Your task to perform on an android device: empty trash in the gmail app Image 0: 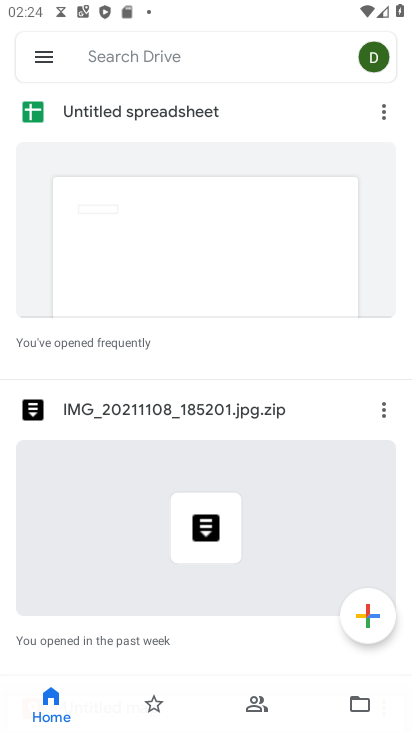
Step 0: press home button
Your task to perform on an android device: empty trash in the gmail app Image 1: 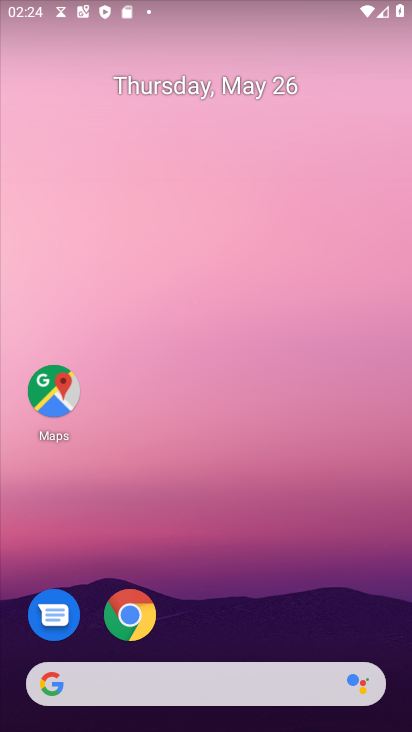
Step 1: drag from (212, 650) to (245, 22)
Your task to perform on an android device: empty trash in the gmail app Image 2: 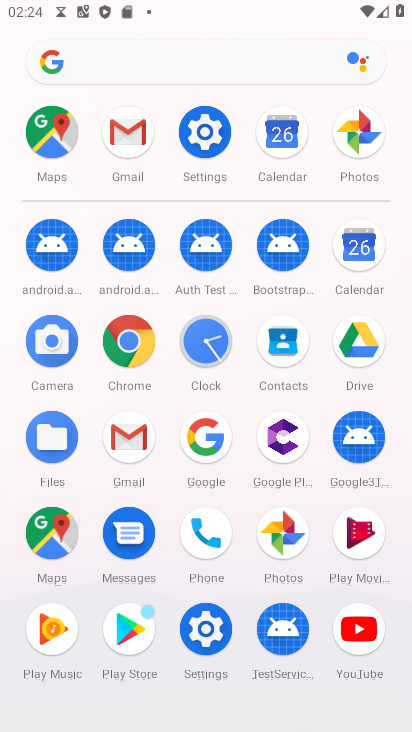
Step 2: click (126, 433)
Your task to perform on an android device: empty trash in the gmail app Image 3: 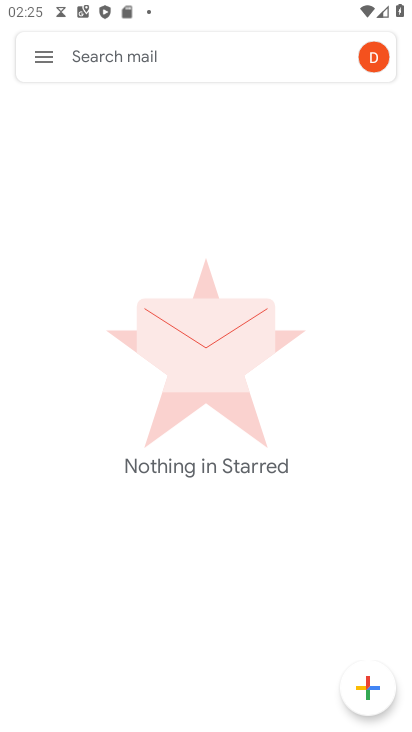
Step 3: click (38, 56)
Your task to perform on an android device: empty trash in the gmail app Image 4: 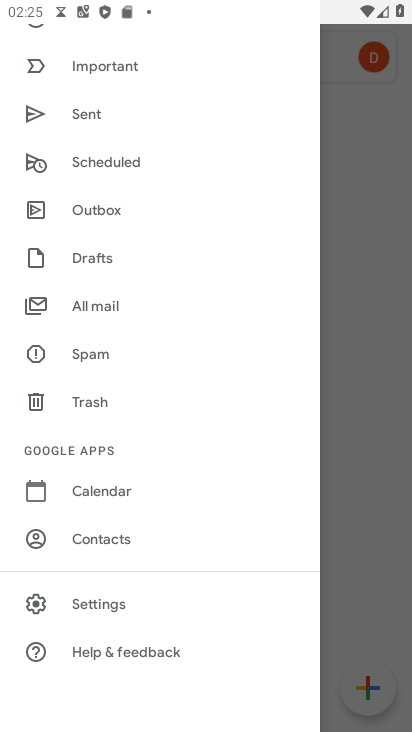
Step 4: click (115, 393)
Your task to perform on an android device: empty trash in the gmail app Image 5: 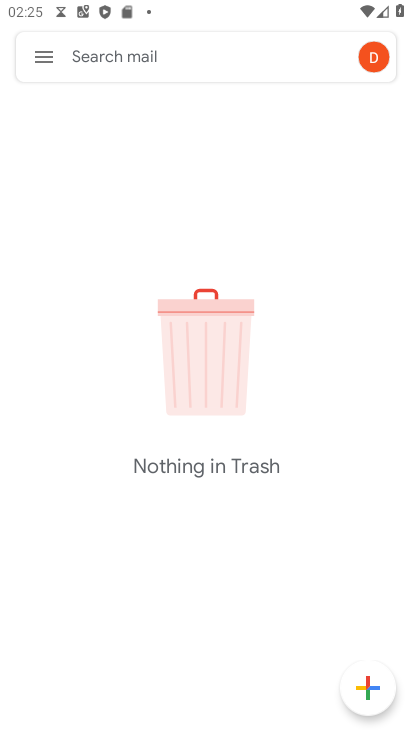
Step 5: task complete